Your task to perform on an android device: Open the map Image 0: 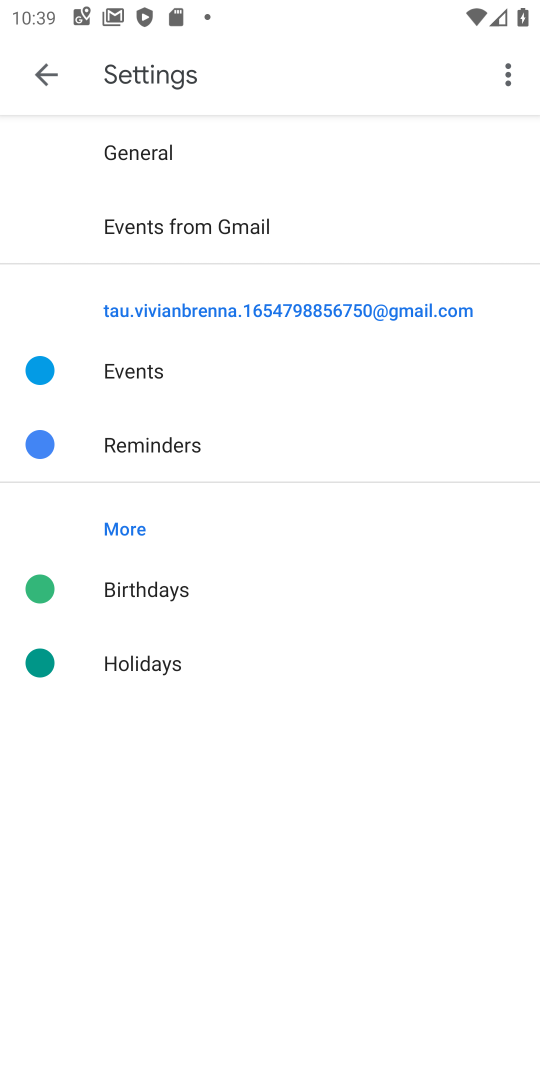
Step 0: press home button
Your task to perform on an android device: Open the map Image 1: 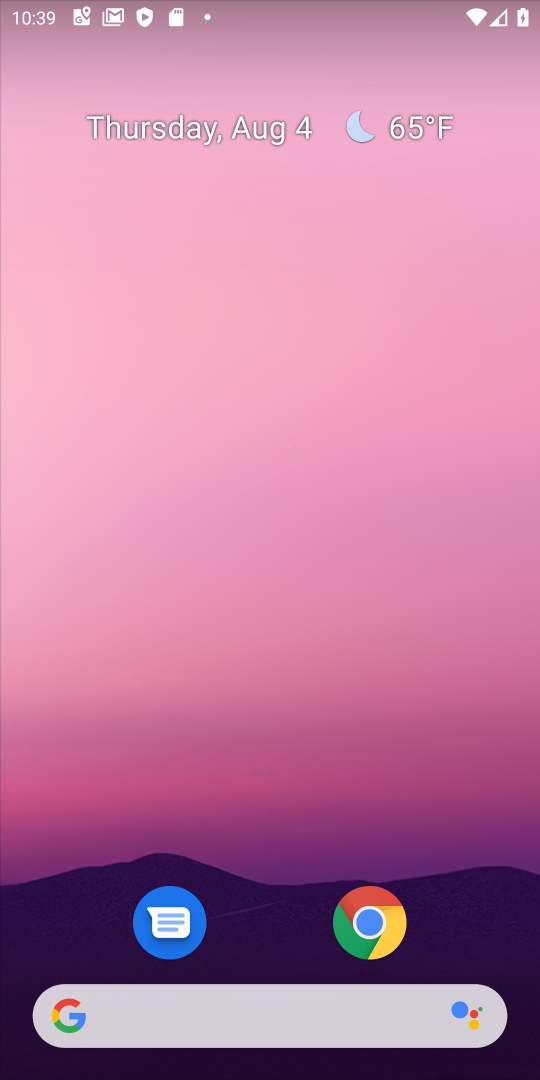
Step 1: drag from (267, 983) to (232, 312)
Your task to perform on an android device: Open the map Image 2: 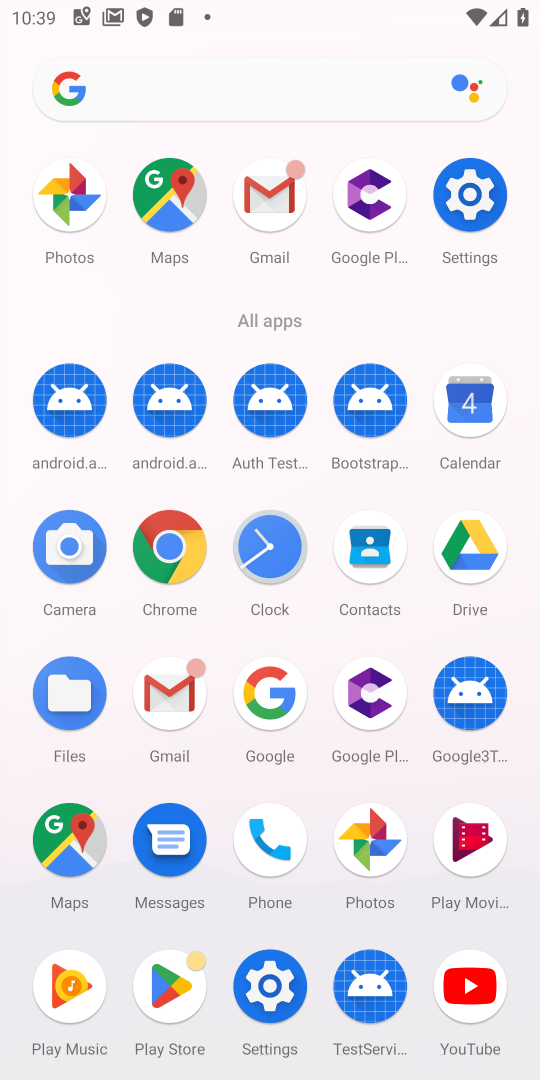
Step 2: click (172, 218)
Your task to perform on an android device: Open the map Image 3: 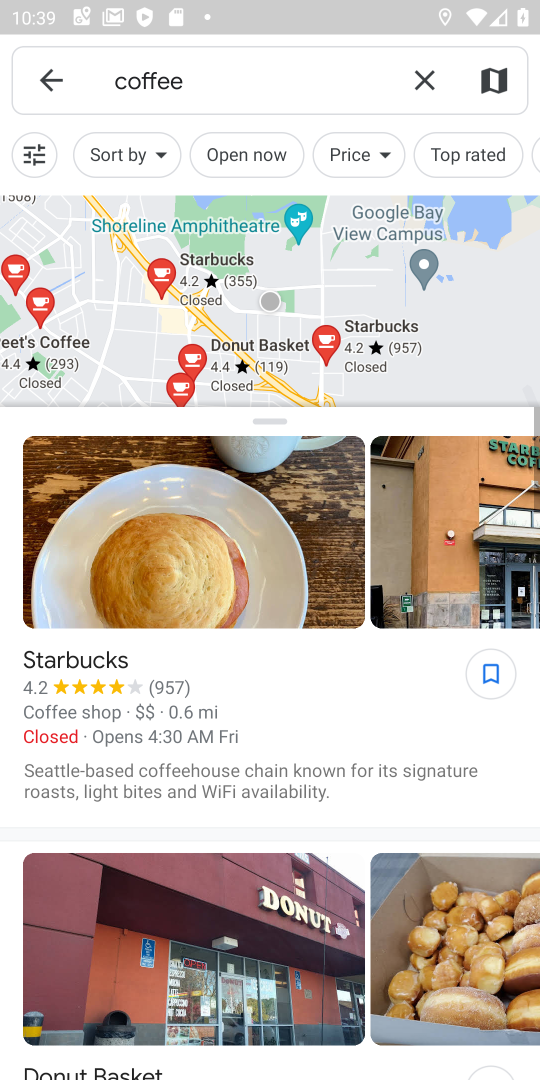
Step 3: click (430, 78)
Your task to perform on an android device: Open the map Image 4: 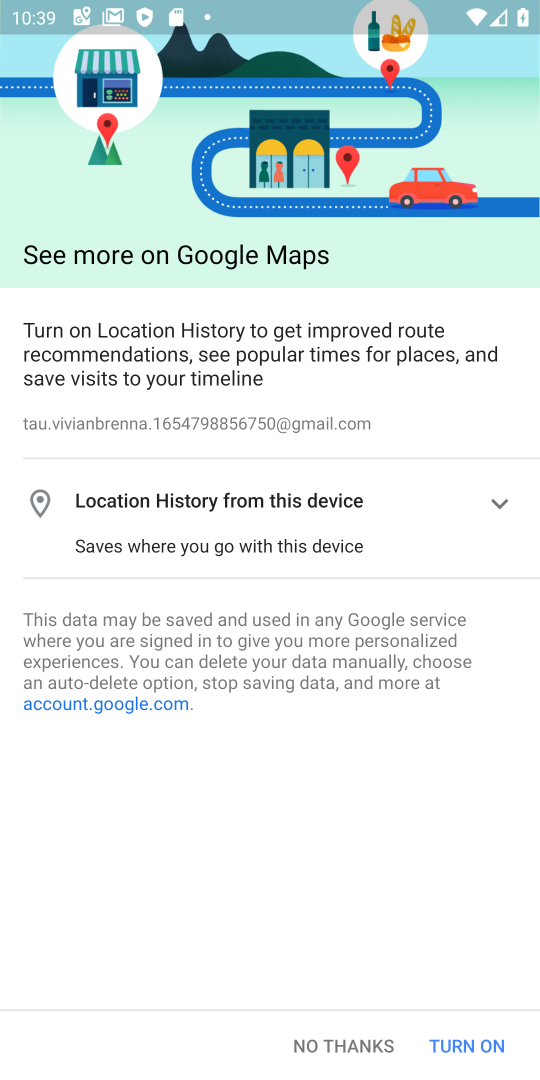
Step 4: click (475, 1045)
Your task to perform on an android device: Open the map Image 5: 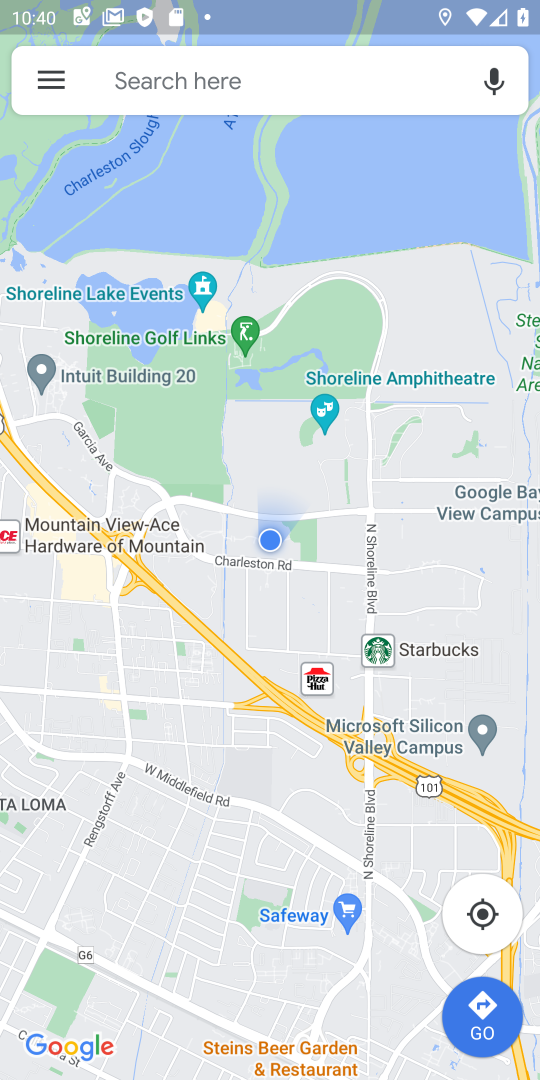
Step 5: task complete